Your task to perform on an android device: open sync settings in chrome Image 0: 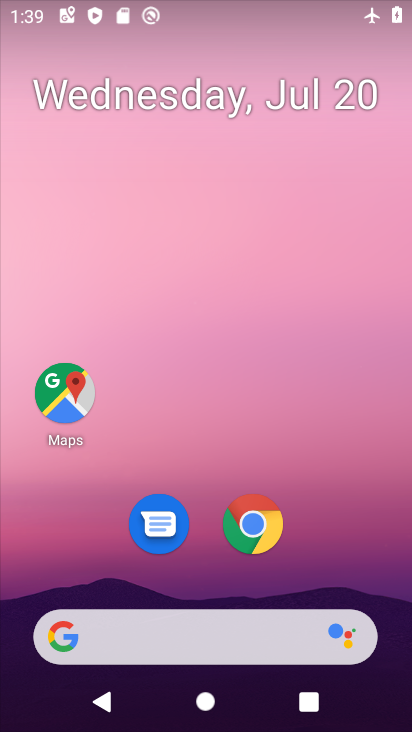
Step 0: click (259, 525)
Your task to perform on an android device: open sync settings in chrome Image 1: 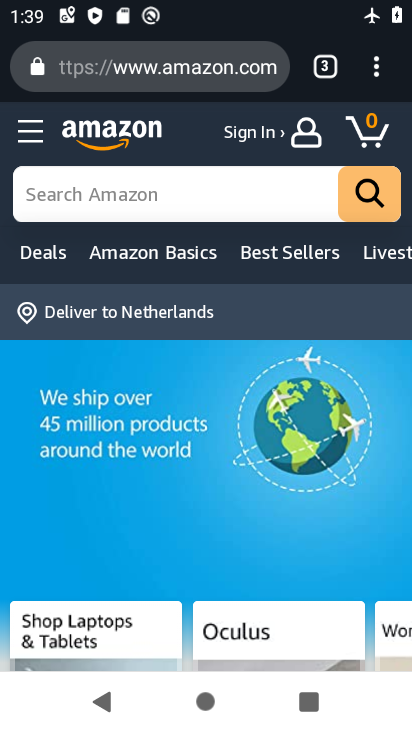
Step 1: click (377, 73)
Your task to perform on an android device: open sync settings in chrome Image 2: 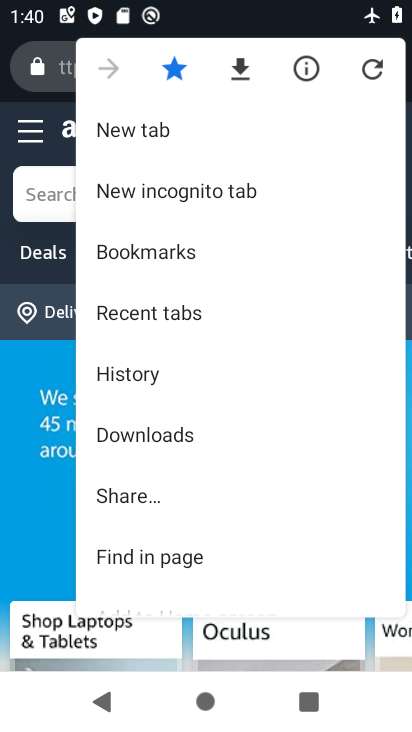
Step 2: drag from (246, 539) to (228, 108)
Your task to perform on an android device: open sync settings in chrome Image 3: 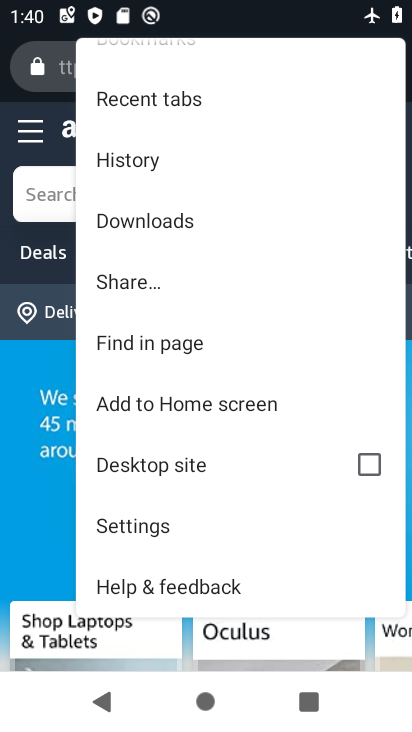
Step 3: click (158, 518)
Your task to perform on an android device: open sync settings in chrome Image 4: 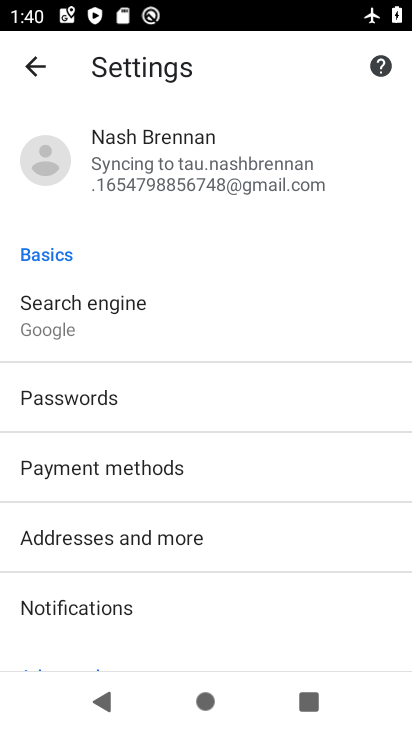
Step 4: click (186, 178)
Your task to perform on an android device: open sync settings in chrome Image 5: 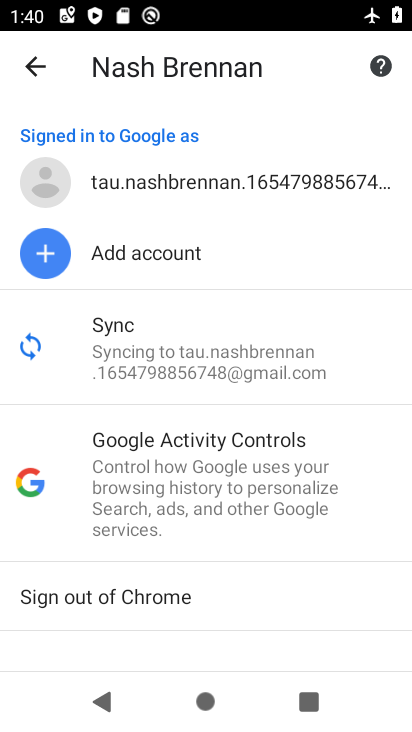
Step 5: click (156, 340)
Your task to perform on an android device: open sync settings in chrome Image 6: 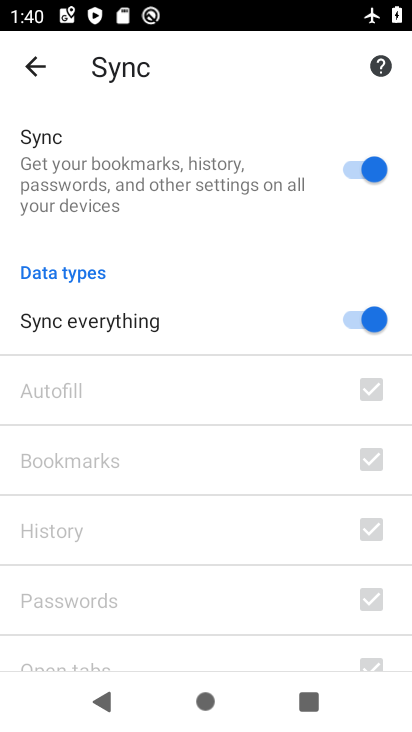
Step 6: task complete